Your task to perform on an android device: Open Google Maps and go to "Timeline" Image 0: 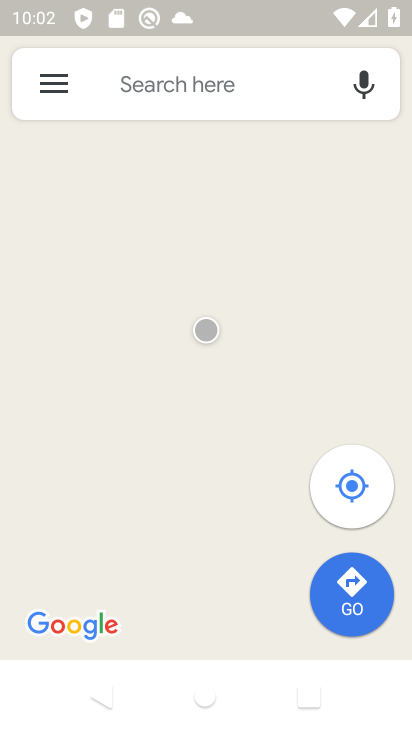
Step 0: click (34, 84)
Your task to perform on an android device: Open Google Maps and go to "Timeline" Image 1: 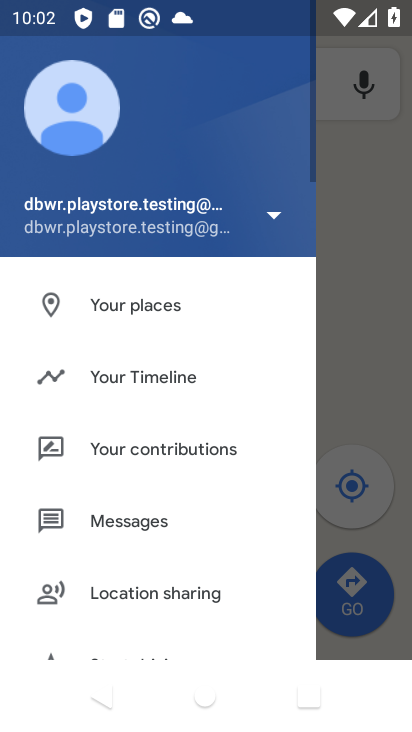
Step 1: click (158, 384)
Your task to perform on an android device: Open Google Maps and go to "Timeline" Image 2: 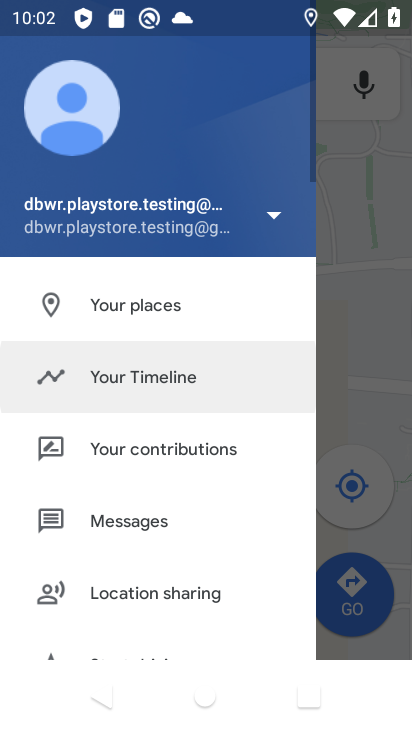
Step 2: click (160, 381)
Your task to perform on an android device: Open Google Maps and go to "Timeline" Image 3: 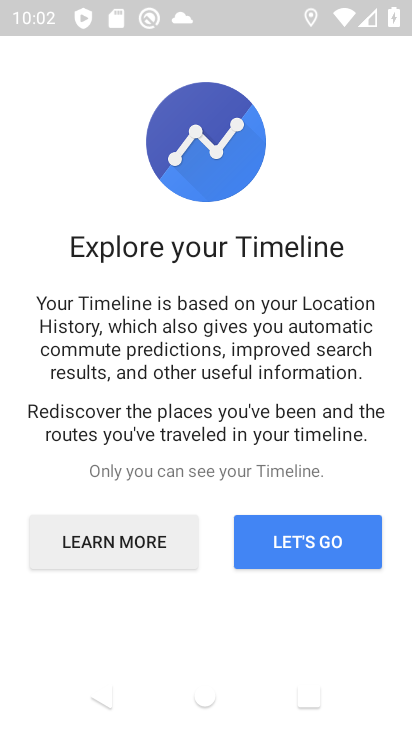
Step 3: click (299, 564)
Your task to perform on an android device: Open Google Maps and go to "Timeline" Image 4: 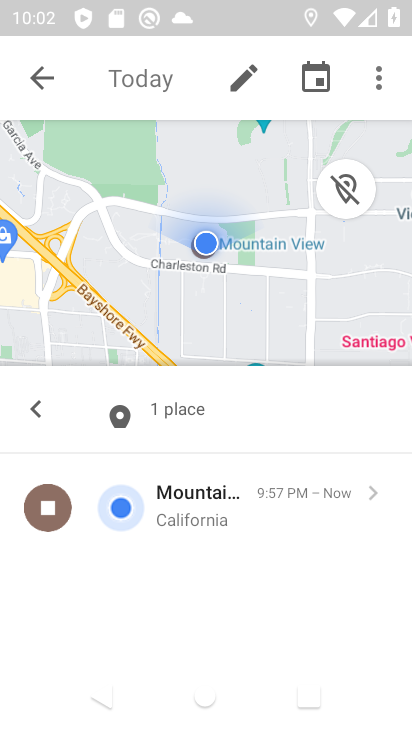
Step 4: task complete